Your task to perform on an android device: add a label to a message in the gmail app Image 0: 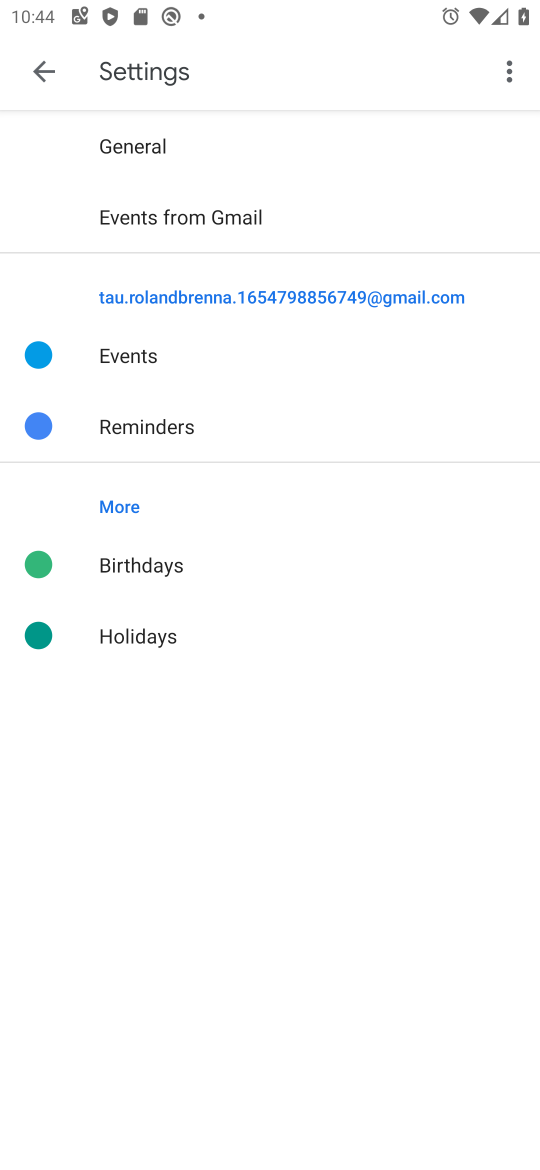
Step 0: press home button
Your task to perform on an android device: add a label to a message in the gmail app Image 1: 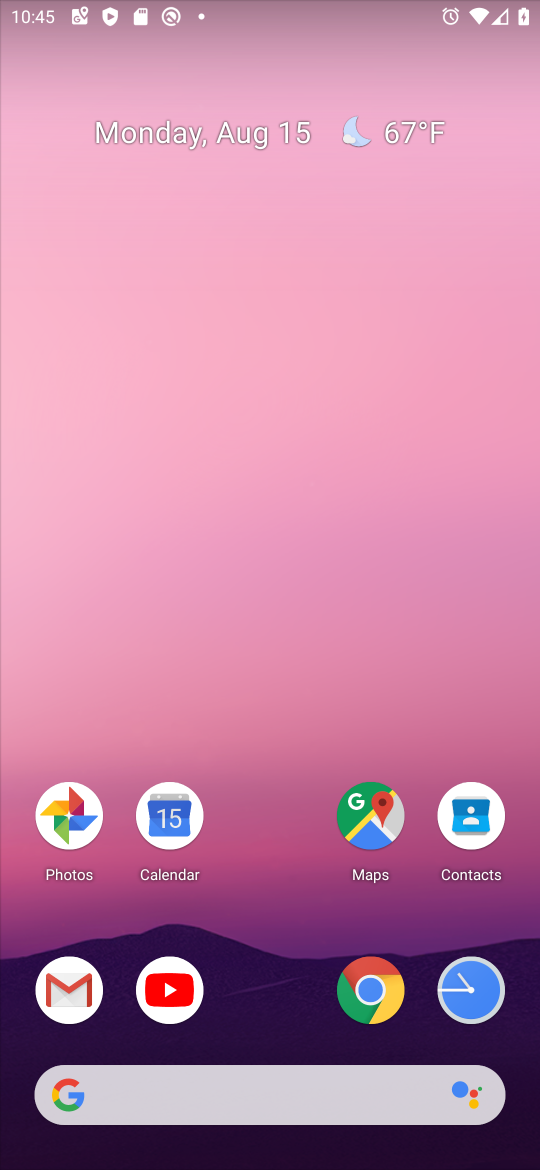
Step 1: click (76, 984)
Your task to perform on an android device: add a label to a message in the gmail app Image 2: 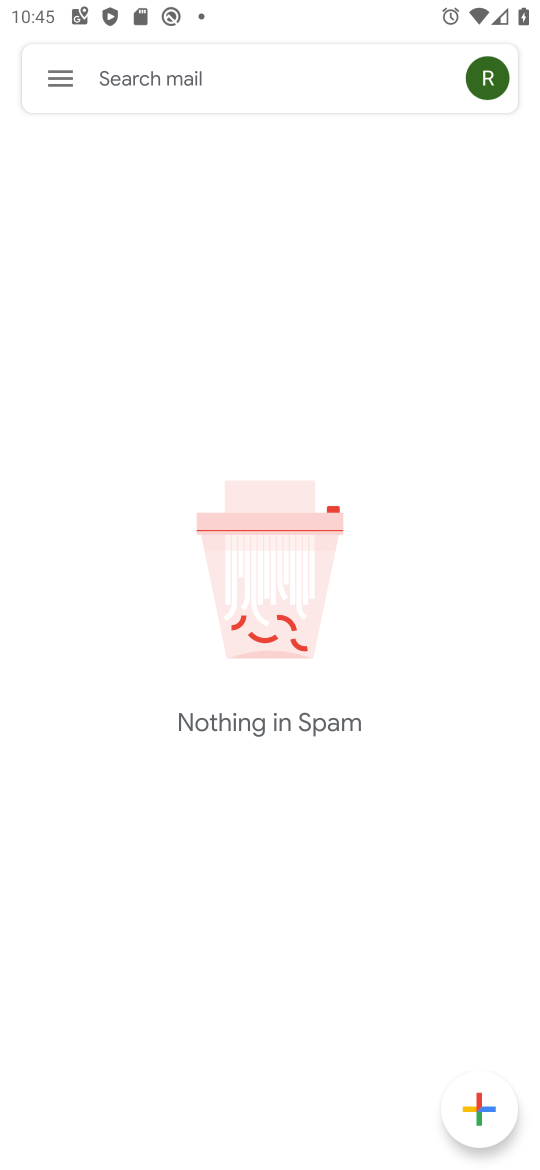
Step 2: click (60, 77)
Your task to perform on an android device: add a label to a message in the gmail app Image 3: 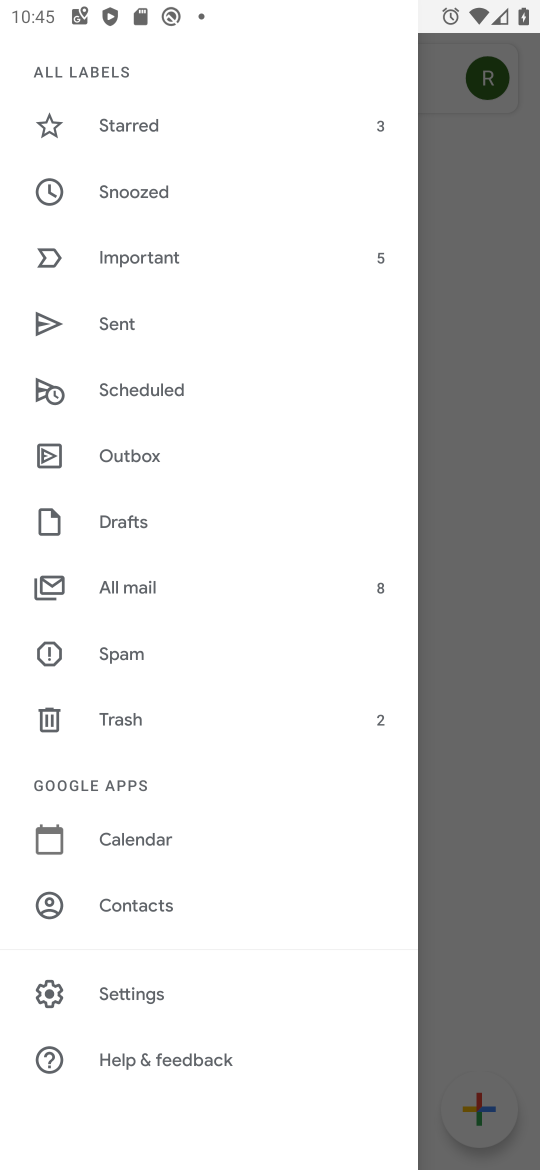
Step 3: click (127, 579)
Your task to perform on an android device: add a label to a message in the gmail app Image 4: 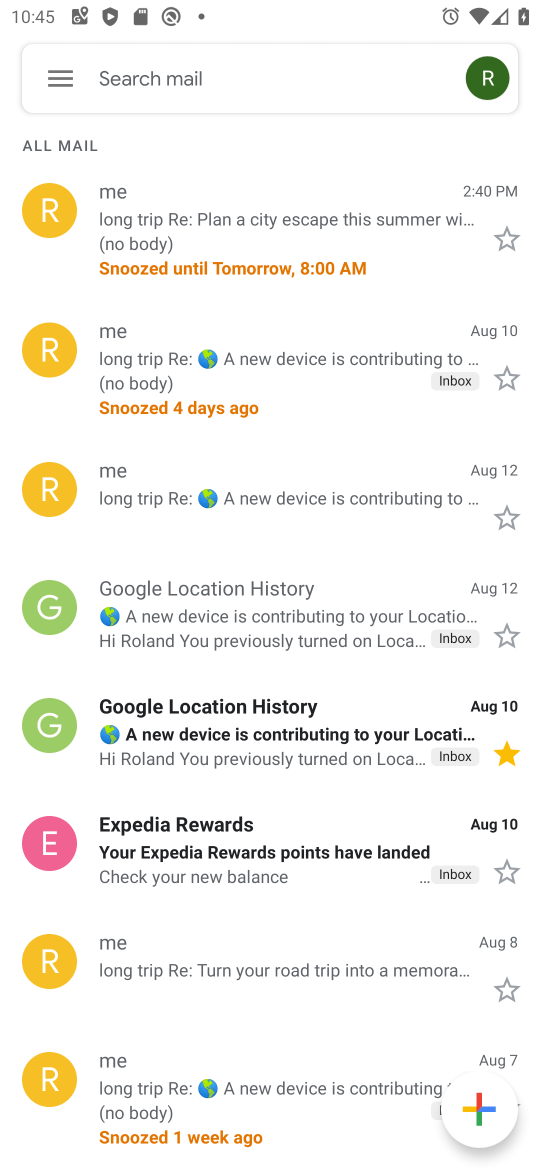
Step 4: click (208, 620)
Your task to perform on an android device: add a label to a message in the gmail app Image 5: 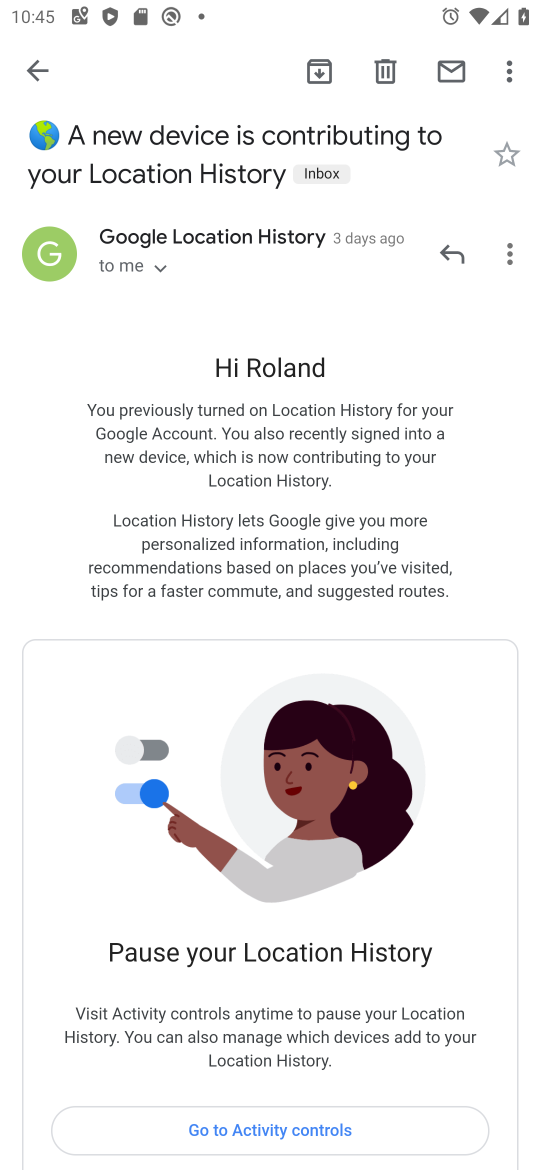
Step 5: click (512, 68)
Your task to perform on an android device: add a label to a message in the gmail app Image 6: 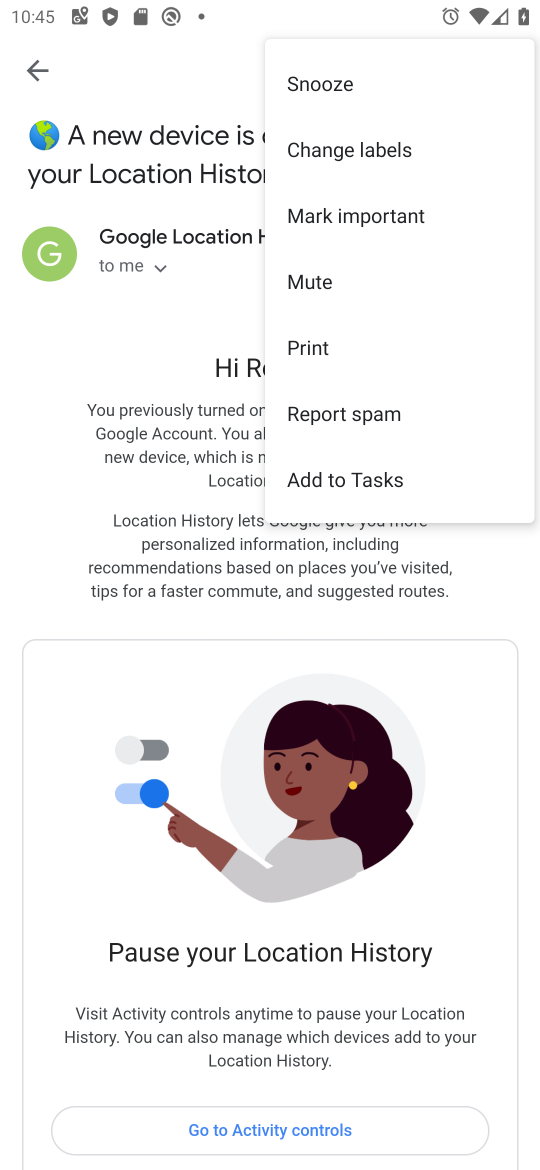
Step 6: click (367, 146)
Your task to perform on an android device: add a label to a message in the gmail app Image 7: 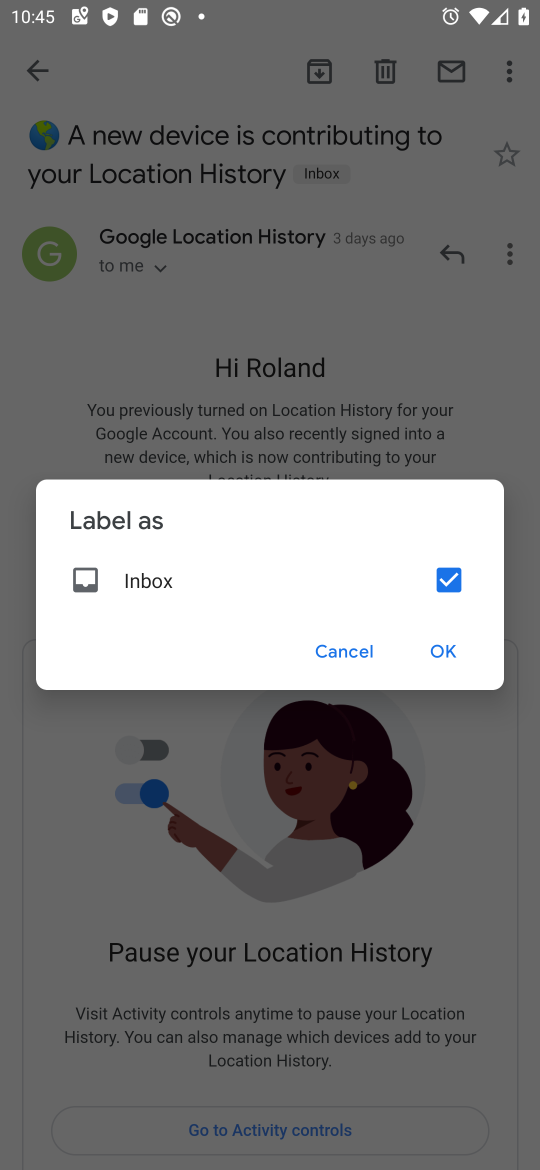
Step 7: click (439, 644)
Your task to perform on an android device: add a label to a message in the gmail app Image 8: 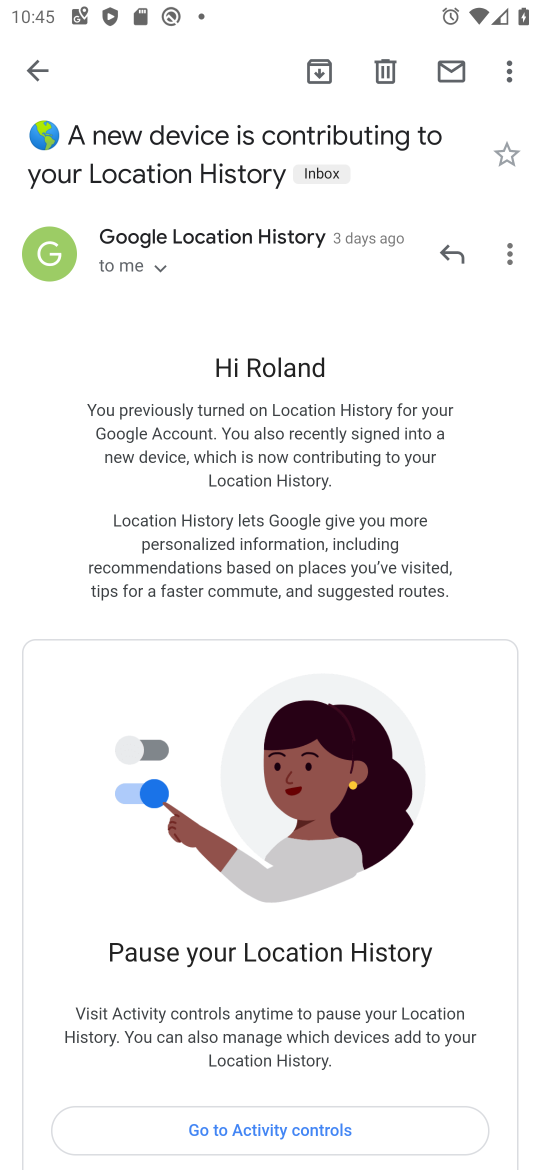
Step 8: task complete